Your task to perform on an android device: Go to privacy settings Image 0: 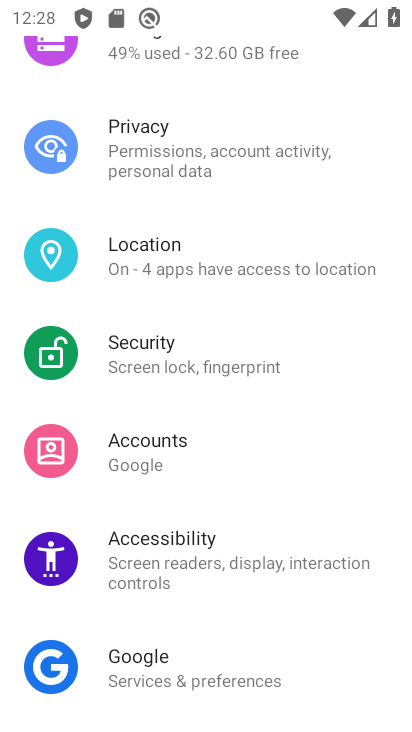
Step 0: drag from (235, 118) to (230, 429)
Your task to perform on an android device: Go to privacy settings Image 1: 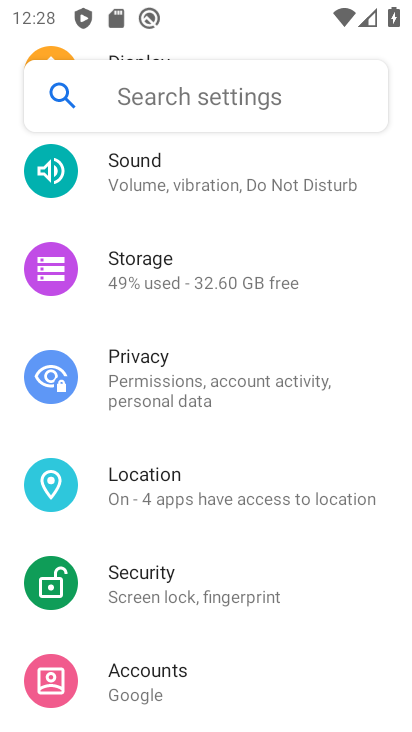
Step 1: click (166, 390)
Your task to perform on an android device: Go to privacy settings Image 2: 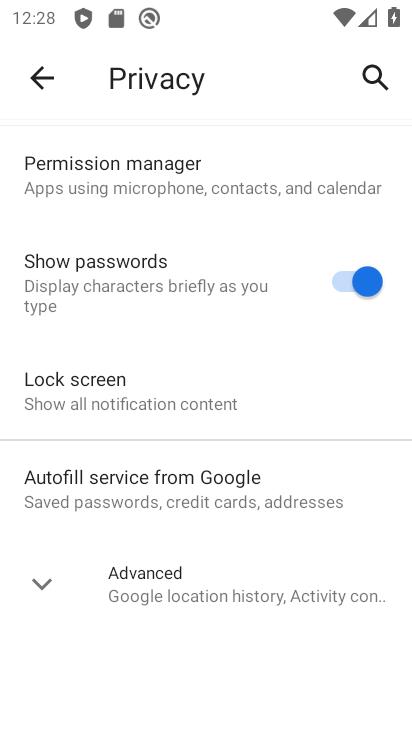
Step 2: task complete